Your task to perform on an android device: Go to battery settings Image 0: 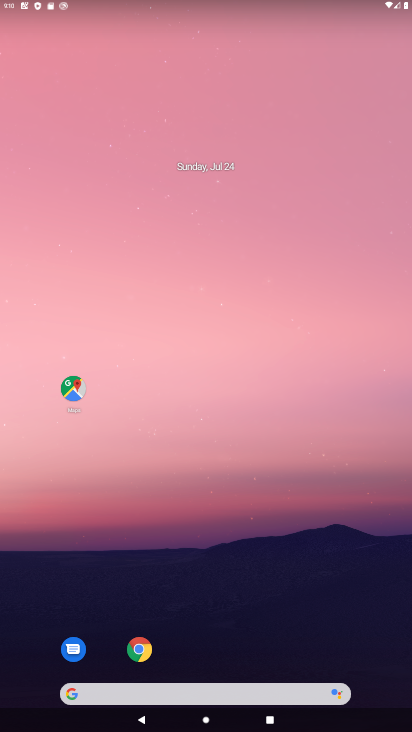
Step 0: press home button
Your task to perform on an android device: Go to battery settings Image 1: 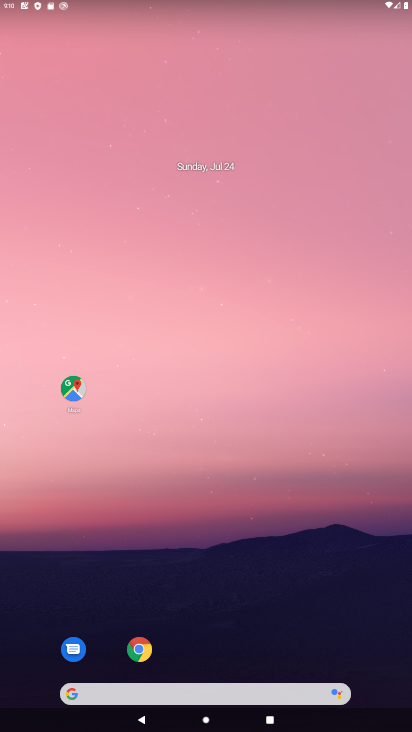
Step 1: drag from (351, 636) to (349, 108)
Your task to perform on an android device: Go to battery settings Image 2: 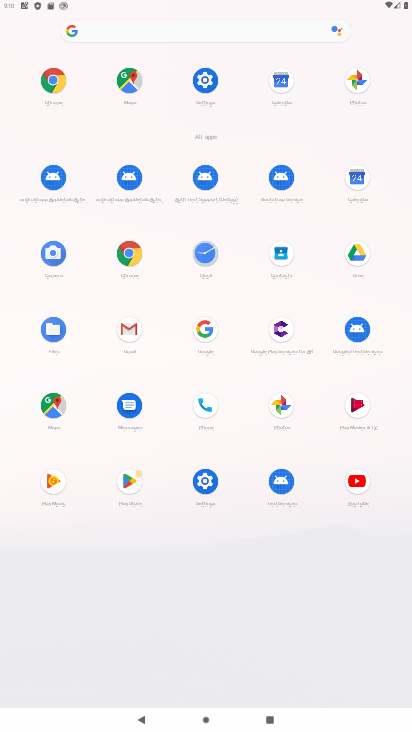
Step 2: click (205, 87)
Your task to perform on an android device: Go to battery settings Image 3: 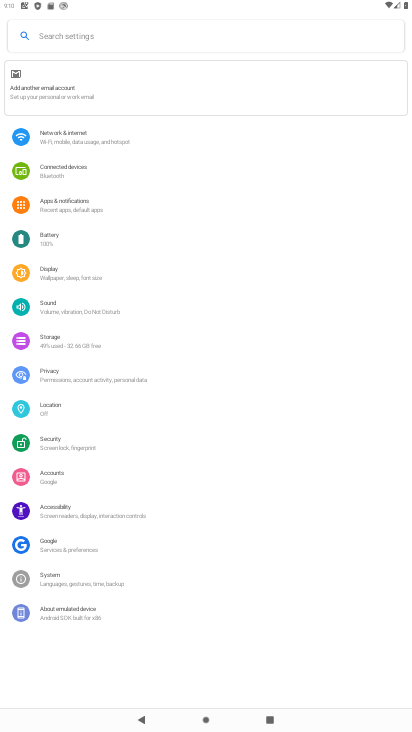
Step 3: click (86, 240)
Your task to perform on an android device: Go to battery settings Image 4: 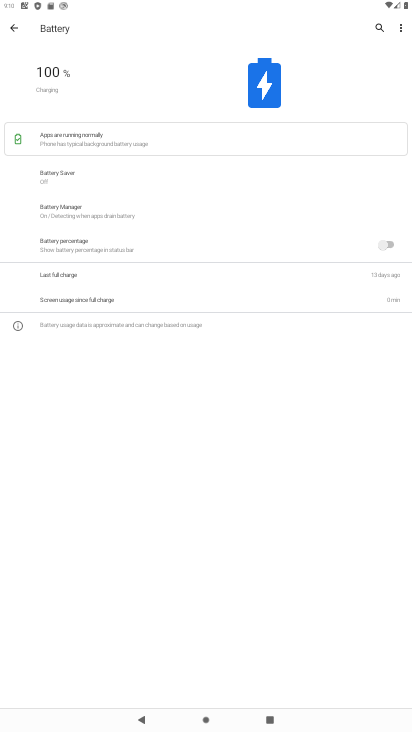
Step 4: task complete